Your task to perform on an android device: Search for razer kraken on amazon, select the first entry, and add it to the cart. Image 0: 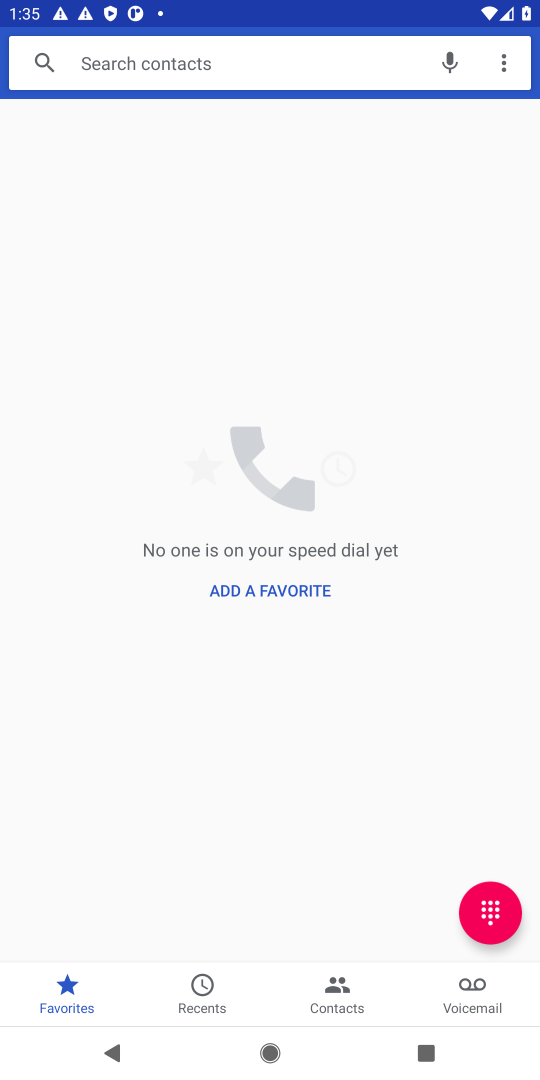
Step 0: press home button
Your task to perform on an android device: Search for razer kraken on amazon, select the first entry, and add it to the cart. Image 1: 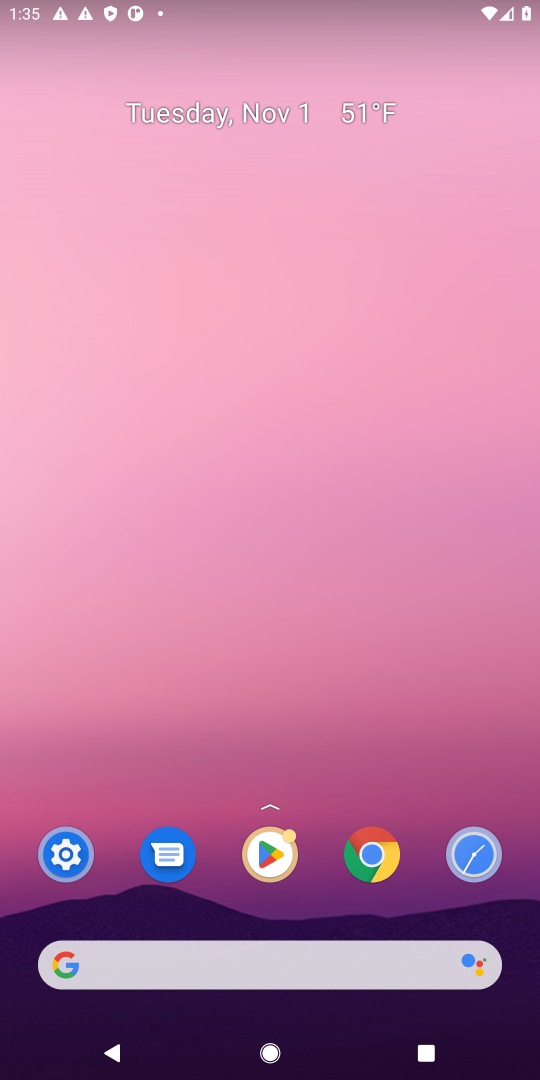
Step 1: click (213, 967)
Your task to perform on an android device: Search for razer kraken on amazon, select the first entry, and add it to the cart. Image 2: 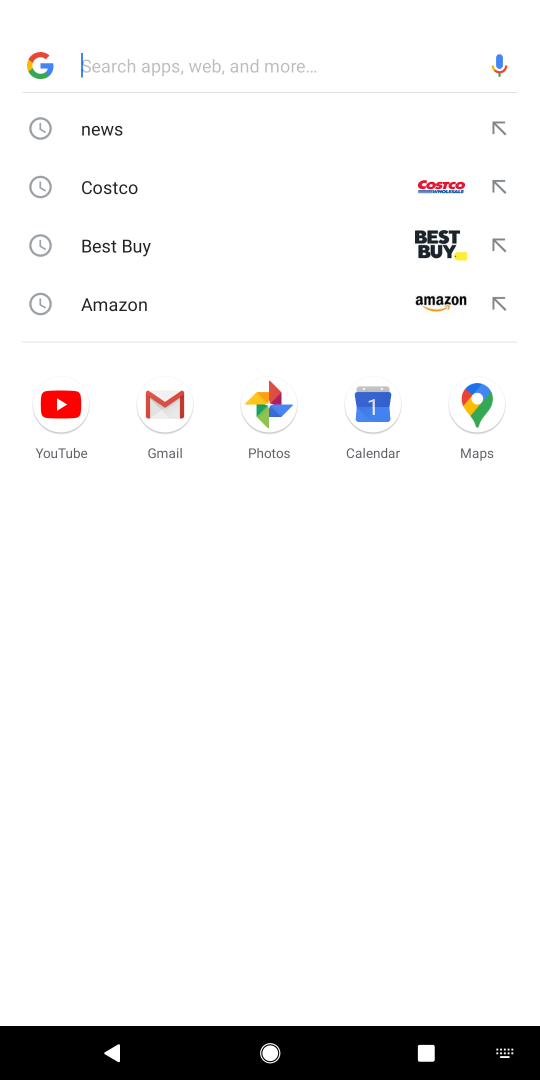
Step 2: click (147, 306)
Your task to perform on an android device: Search for razer kraken on amazon, select the first entry, and add it to the cart. Image 3: 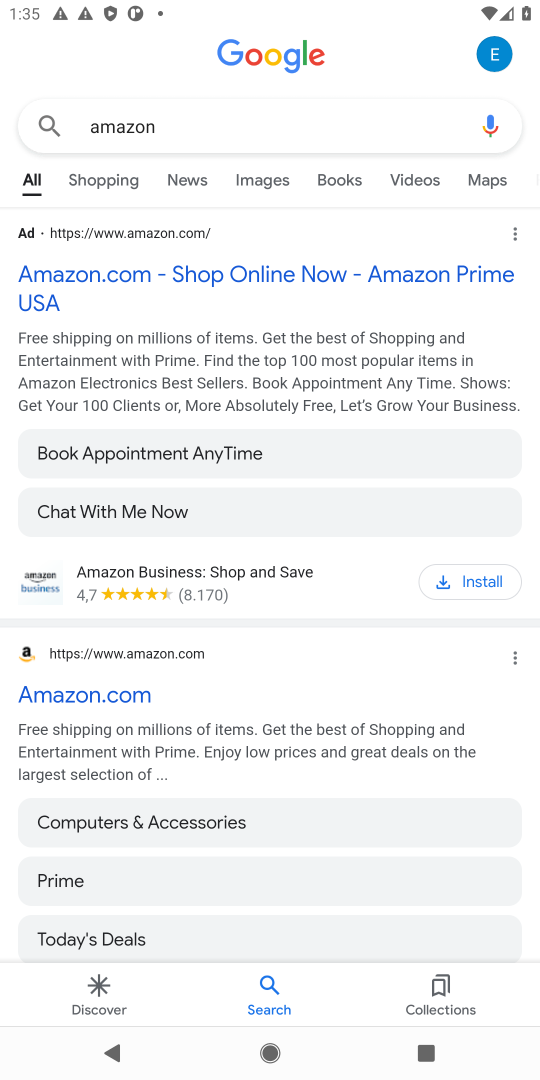
Step 3: click (94, 688)
Your task to perform on an android device: Search for razer kraken on amazon, select the first entry, and add it to the cart. Image 4: 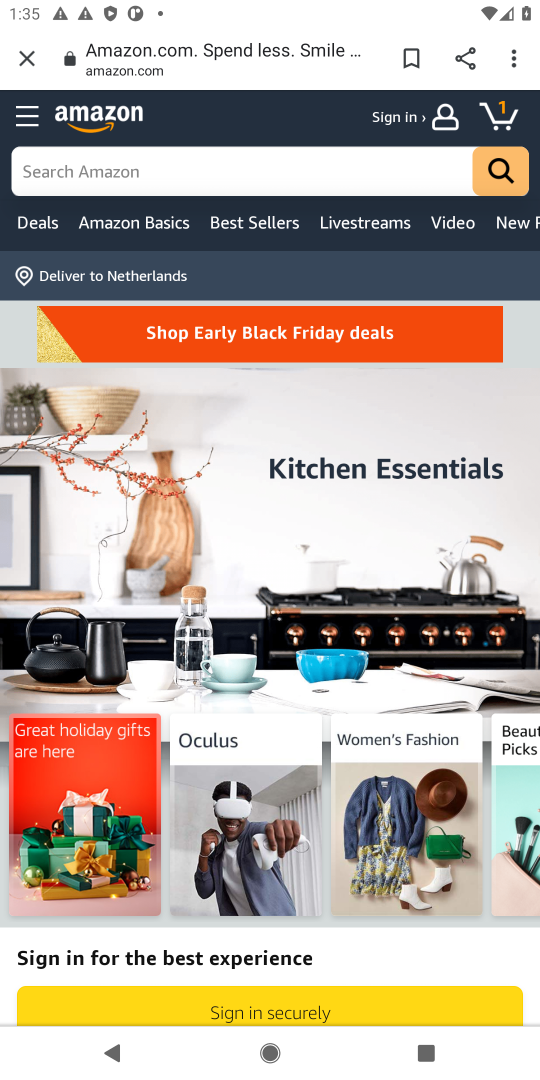
Step 4: click (141, 163)
Your task to perform on an android device: Search for razer kraken on amazon, select the first entry, and add it to the cart. Image 5: 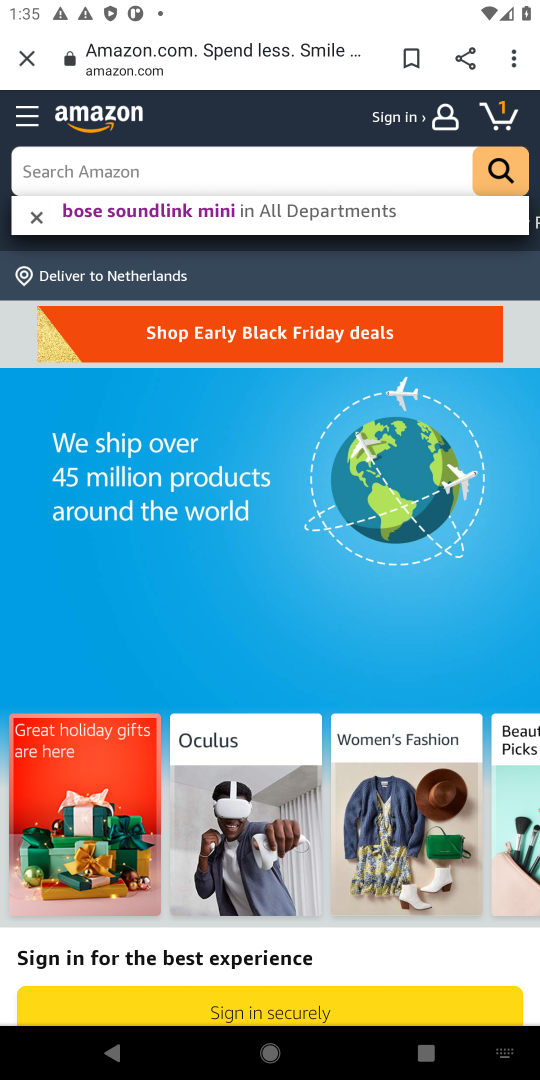
Step 5: type "razer kraken"
Your task to perform on an android device: Search for razer kraken on amazon, select the first entry, and add it to the cart. Image 6: 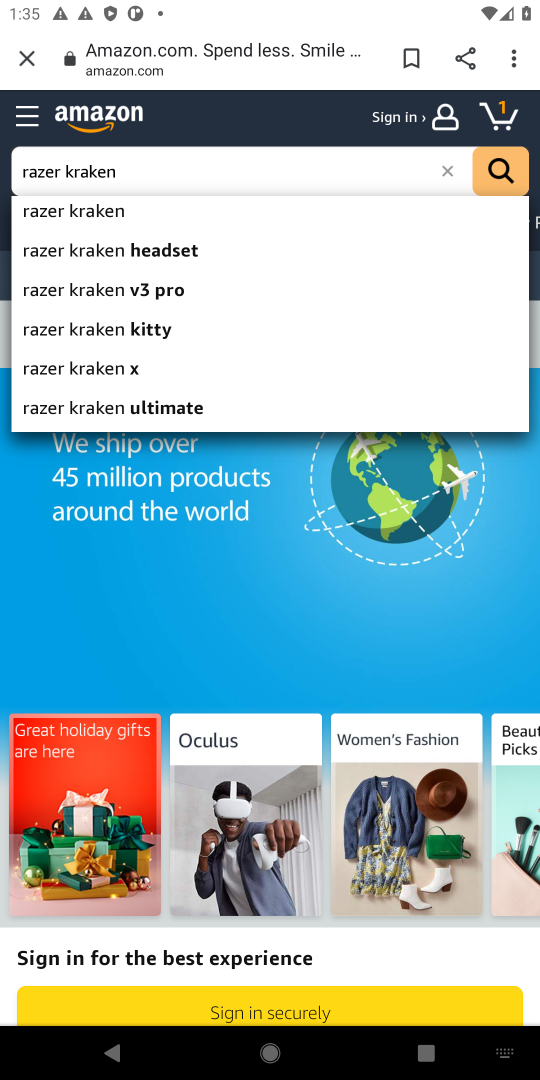
Step 6: click (86, 214)
Your task to perform on an android device: Search for razer kraken on amazon, select the first entry, and add it to the cart. Image 7: 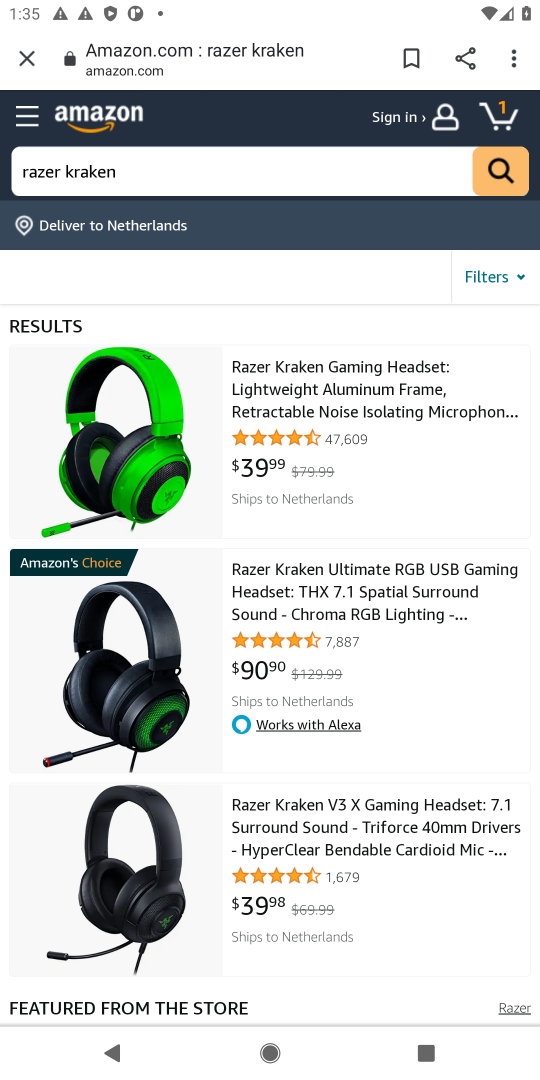
Step 7: click (308, 386)
Your task to perform on an android device: Search for razer kraken on amazon, select the first entry, and add it to the cart. Image 8: 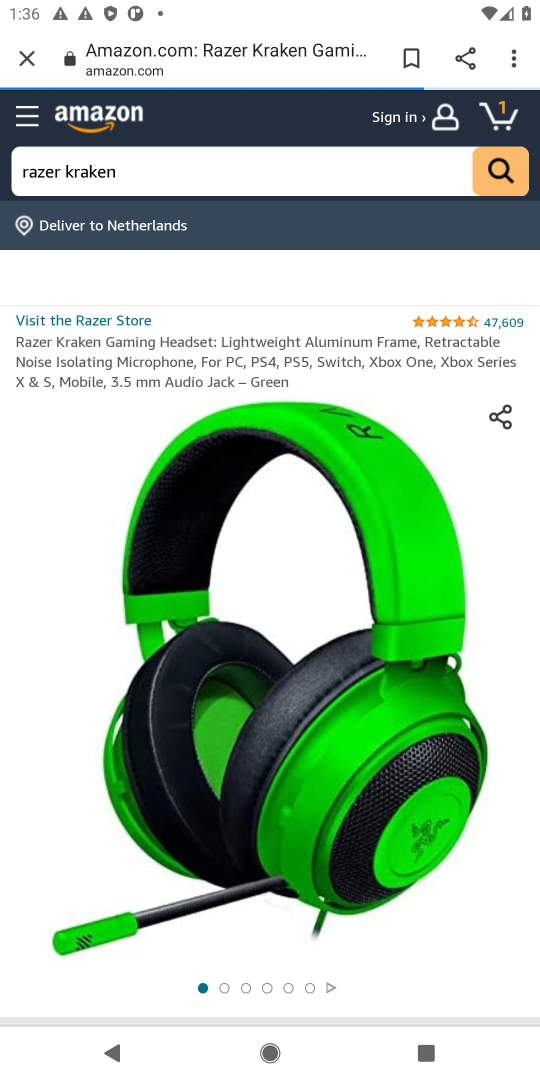
Step 8: drag from (434, 900) to (362, 542)
Your task to perform on an android device: Search for razer kraken on amazon, select the first entry, and add it to the cart. Image 9: 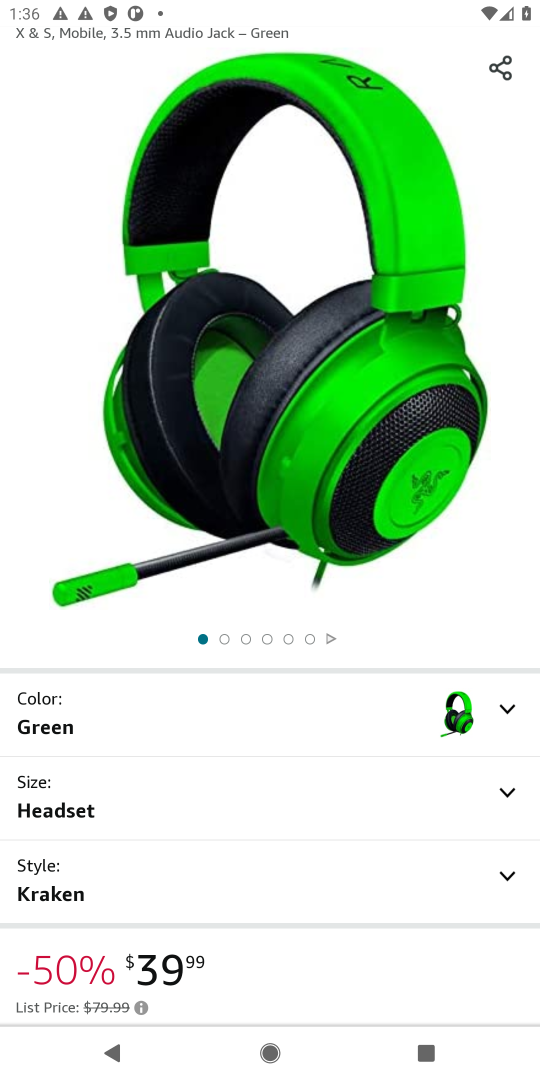
Step 9: drag from (302, 887) to (256, 504)
Your task to perform on an android device: Search for razer kraken on amazon, select the first entry, and add it to the cart. Image 10: 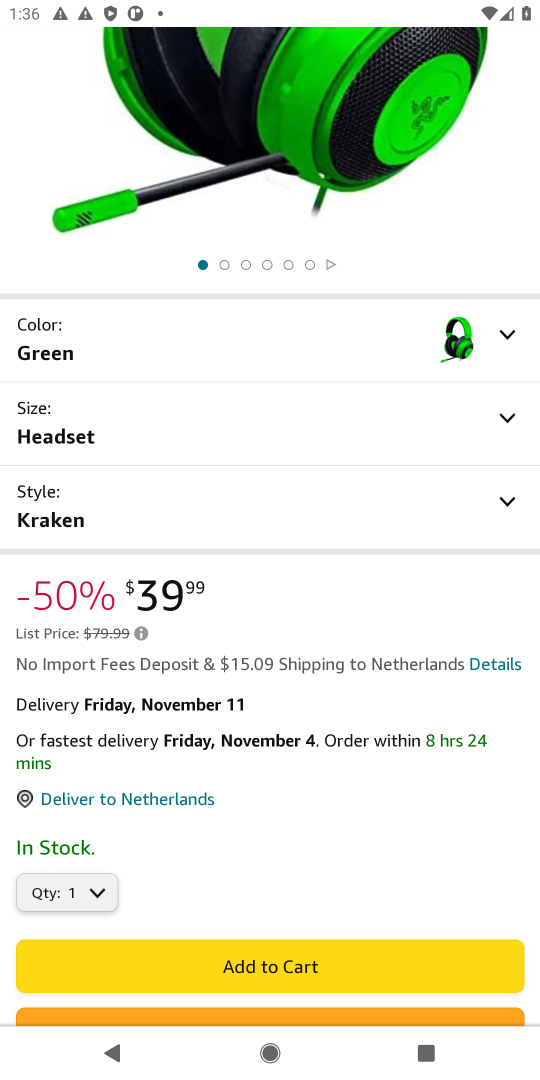
Step 10: click (271, 967)
Your task to perform on an android device: Search for razer kraken on amazon, select the first entry, and add it to the cart. Image 11: 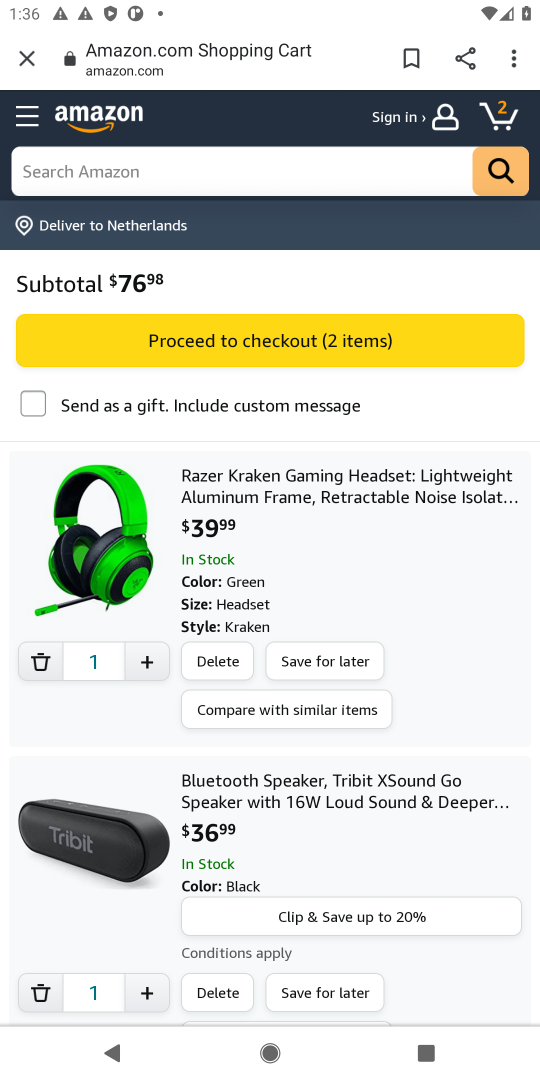
Step 11: task complete